Your task to perform on an android device: What's the weather going to be this weekend? Image 0: 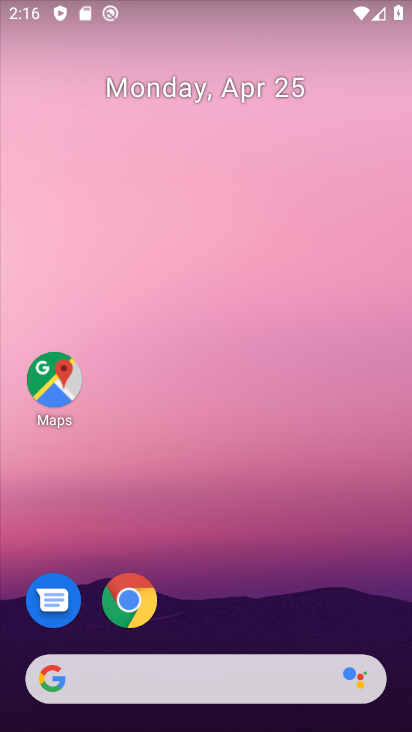
Step 0: press home button
Your task to perform on an android device: What's the weather going to be this weekend? Image 1: 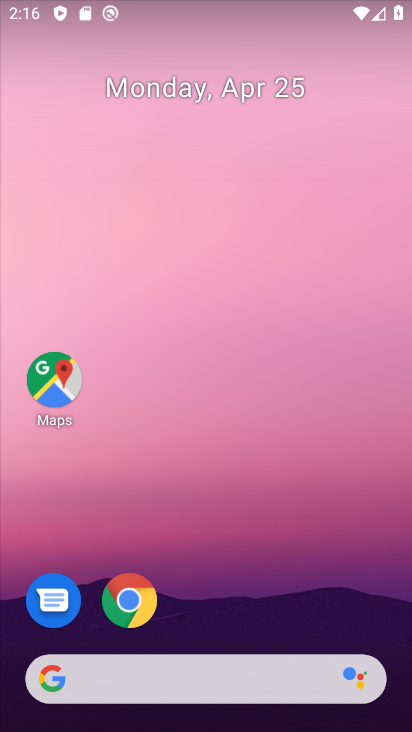
Step 1: drag from (331, 625) to (336, 141)
Your task to perform on an android device: What's the weather going to be this weekend? Image 2: 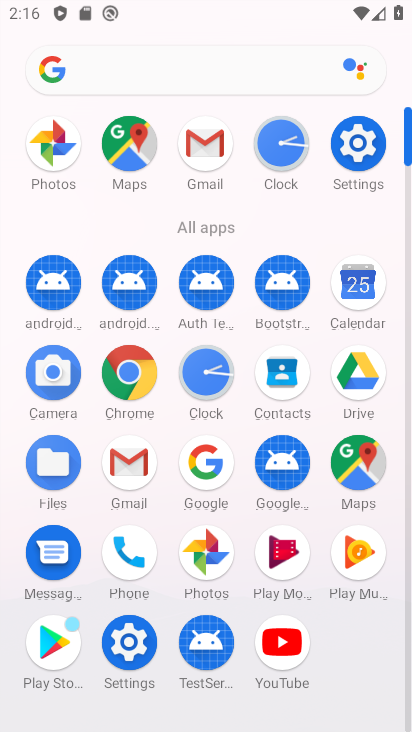
Step 2: click (136, 374)
Your task to perform on an android device: What's the weather going to be this weekend? Image 3: 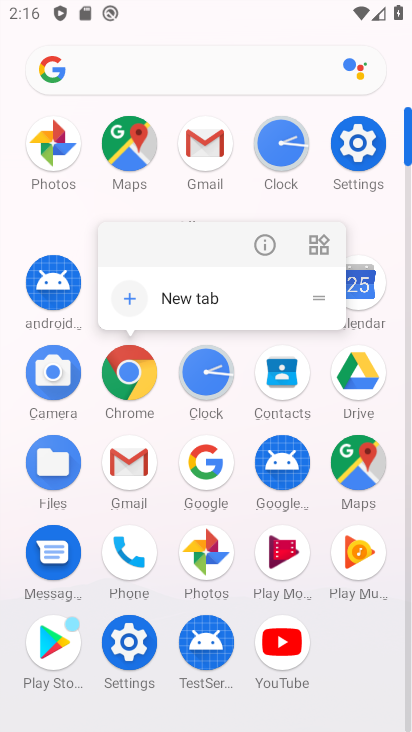
Step 3: click (148, 390)
Your task to perform on an android device: What's the weather going to be this weekend? Image 4: 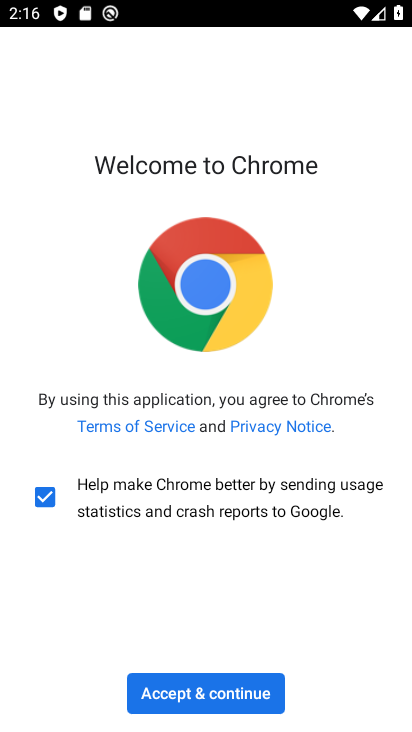
Step 4: click (165, 687)
Your task to perform on an android device: What's the weather going to be this weekend? Image 5: 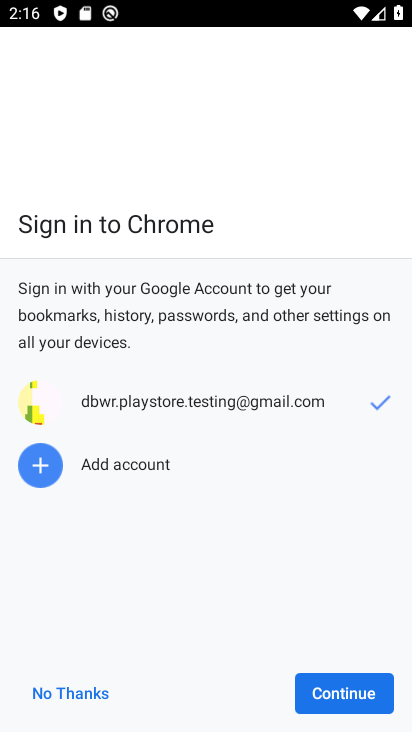
Step 5: click (322, 695)
Your task to perform on an android device: What's the weather going to be this weekend? Image 6: 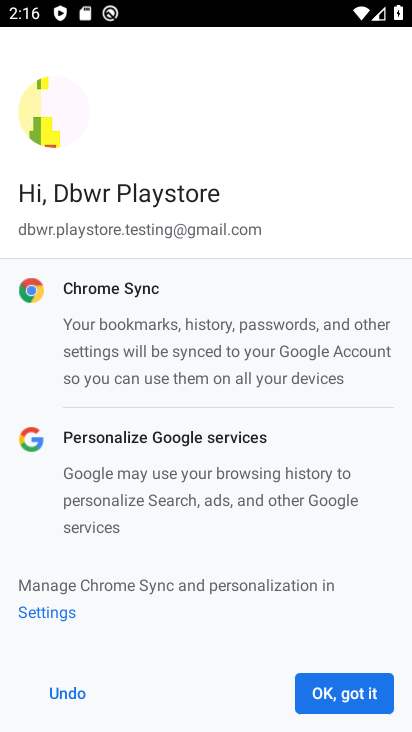
Step 6: click (321, 695)
Your task to perform on an android device: What's the weather going to be this weekend? Image 7: 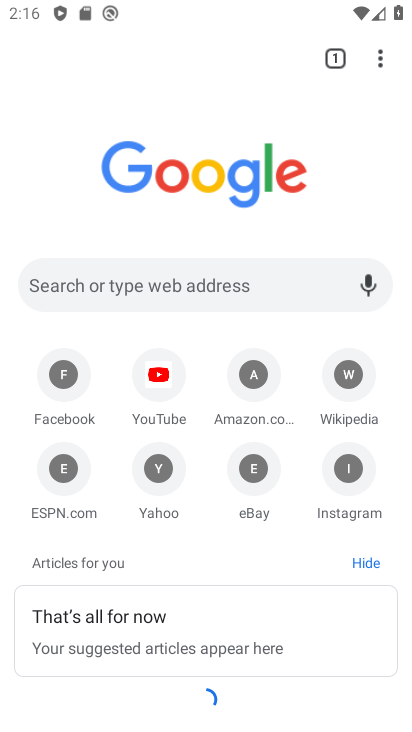
Step 7: click (142, 289)
Your task to perform on an android device: What's the weather going to be this weekend? Image 8: 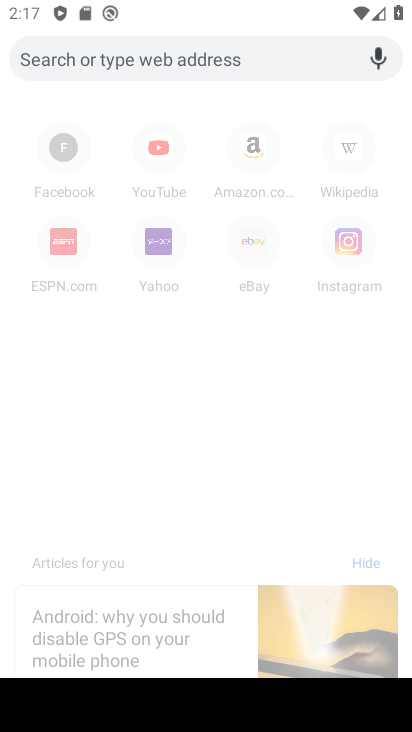
Step 8: type "what's the weather going to be this weekend"
Your task to perform on an android device: What's the weather going to be this weekend? Image 9: 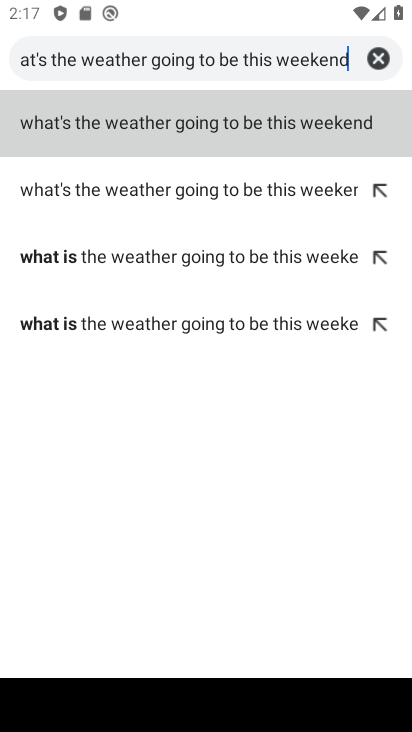
Step 9: click (109, 118)
Your task to perform on an android device: What's the weather going to be this weekend? Image 10: 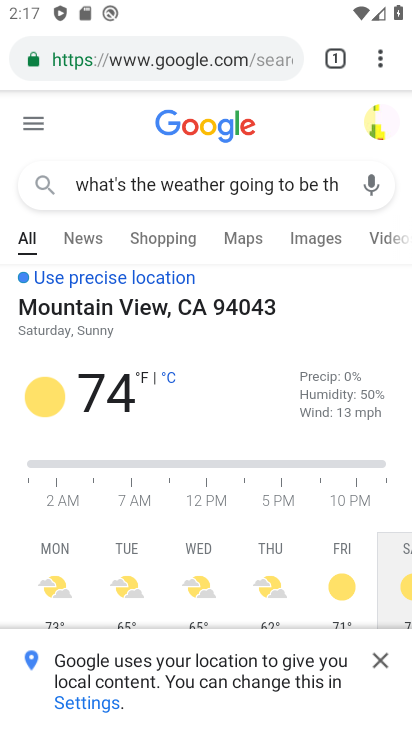
Step 10: task complete